Your task to perform on an android device: Open calendar and show me the second week of next month Image 0: 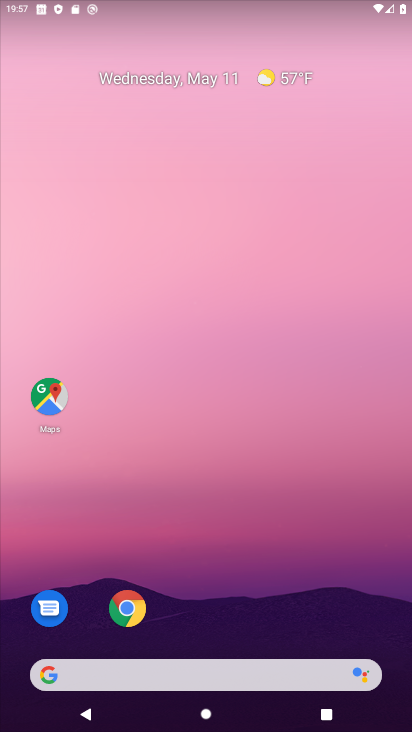
Step 0: drag from (258, 533) to (196, 89)
Your task to perform on an android device: Open calendar and show me the second week of next month Image 1: 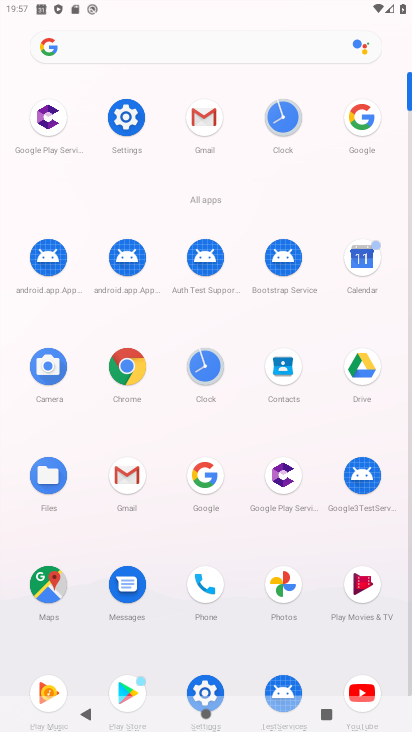
Step 1: click (366, 259)
Your task to perform on an android device: Open calendar and show me the second week of next month Image 2: 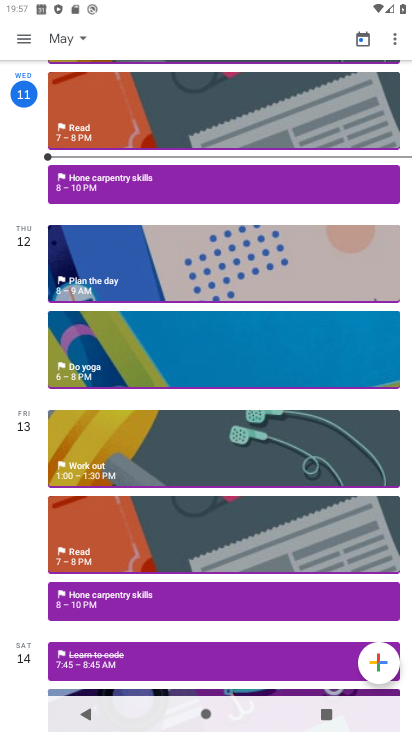
Step 2: click (29, 38)
Your task to perform on an android device: Open calendar and show me the second week of next month Image 3: 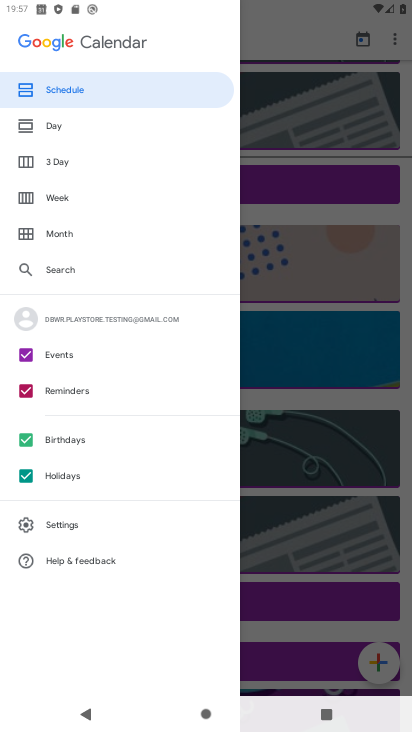
Step 3: click (64, 197)
Your task to perform on an android device: Open calendar and show me the second week of next month Image 4: 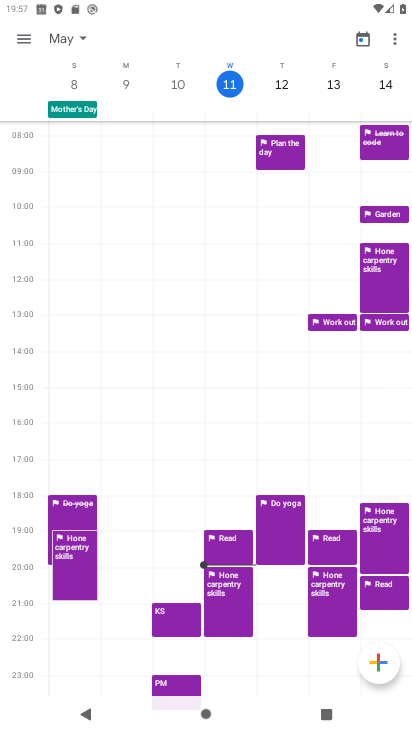
Step 4: click (80, 40)
Your task to perform on an android device: Open calendar and show me the second week of next month Image 5: 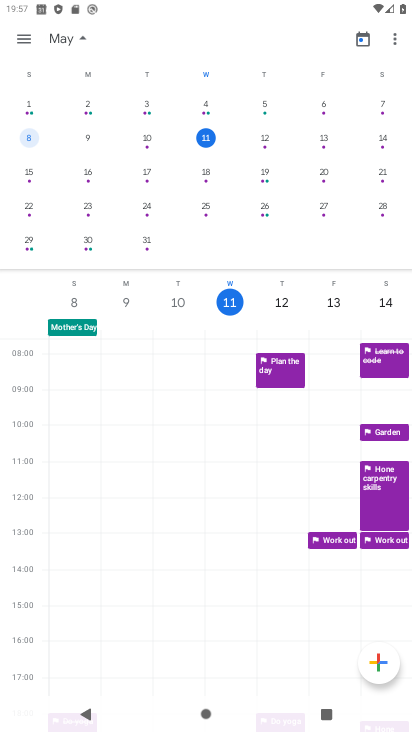
Step 5: drag from (356, 192) to (11, 218)
Your task to perform on an android device: Open calendar and show me the second week of next month Image 6: 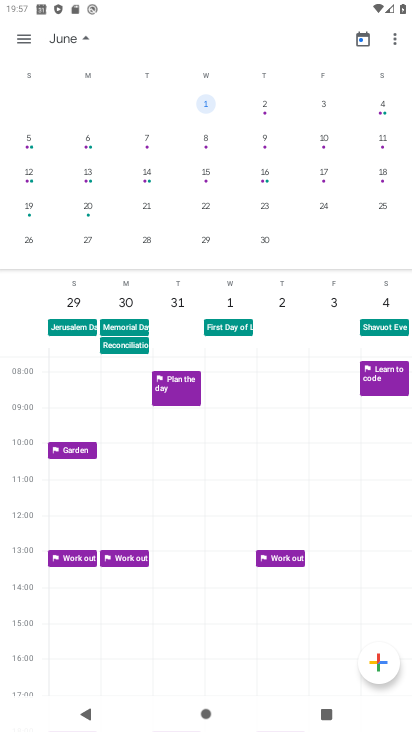
Step 6: click (31, 142)
Your task to perform on an android device: Open calendar and show me the second week of next month Image 7: 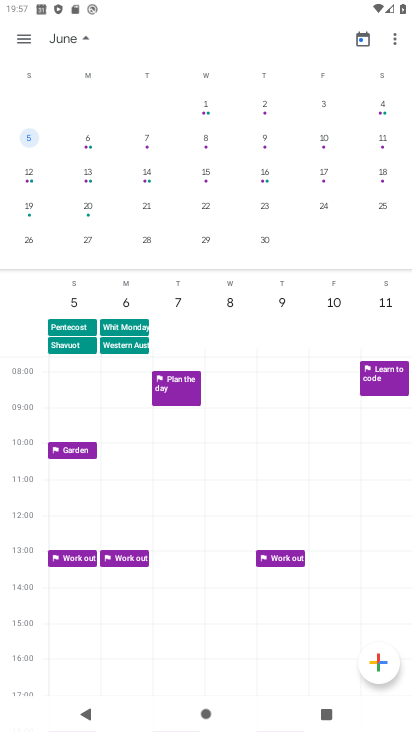
Step 7: task complete